Your task to perform on an android device: Go to Google Image 0: 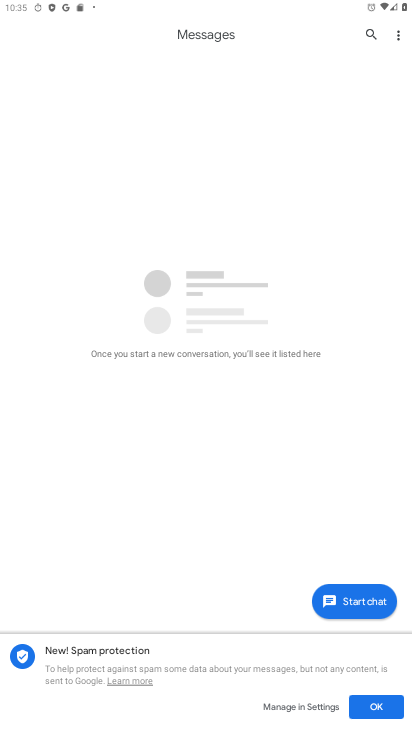
Step 0: press home button
Your task to perform on an android device: Go to Google Image 1: 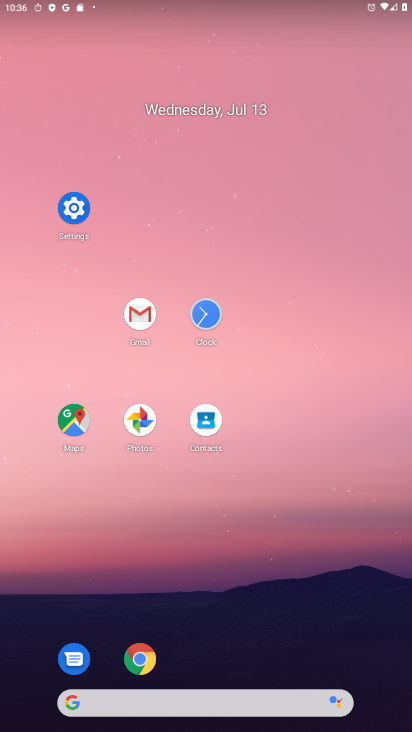
Step 1: drag from (276, 620) to (292, 84)
Your task to perform on an android device: Go to Google Image 2: 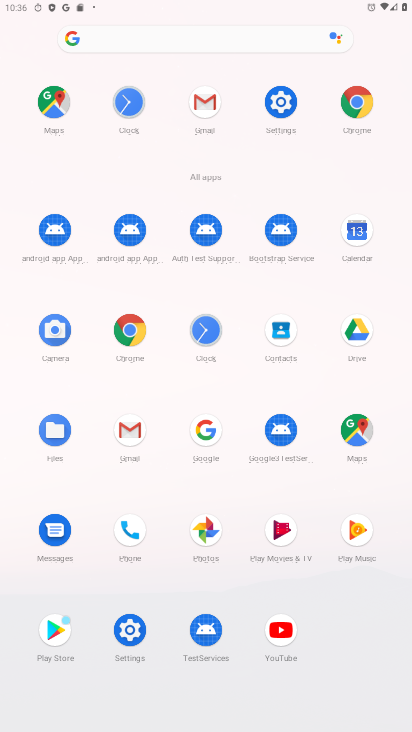
Step 2: drag from (204, 432) to (126, 226)
Your task to perform on an android device: Go to Google Image 3: 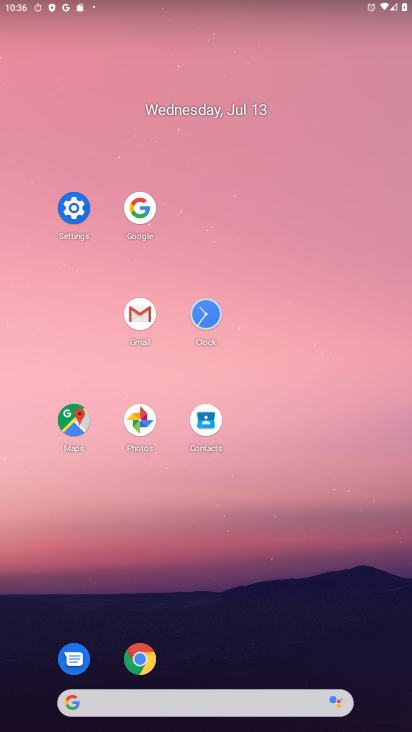
Step 3: click (145, 213)
Your task to perform on an android device: Go to Google Image 4: 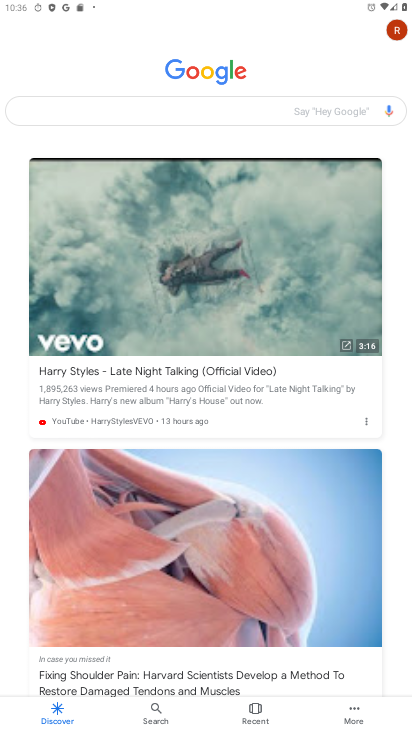
Step 4: task complete